Your task to perform on an android device: turn off priority inbox in the gmail app Image 0: 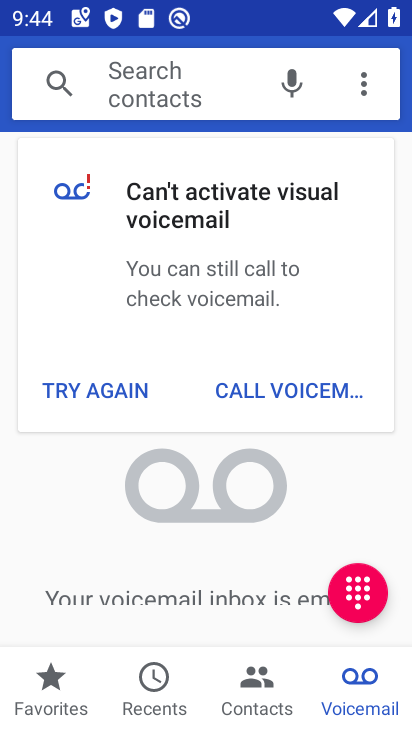
Step 0: press home button
Your task to perform on an android device: turn off priority inbox in the gmail app Image 1: 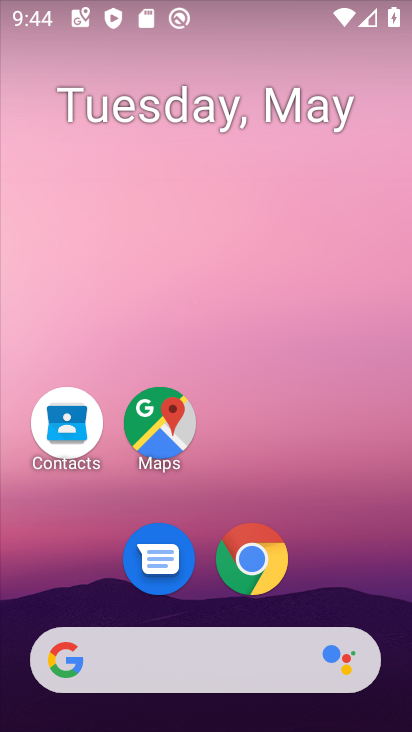
Step 1: drag from (329, 565) to (249, 16)
Your task to perform on an android device: turn off priority inbox in the gmail app Image 2: 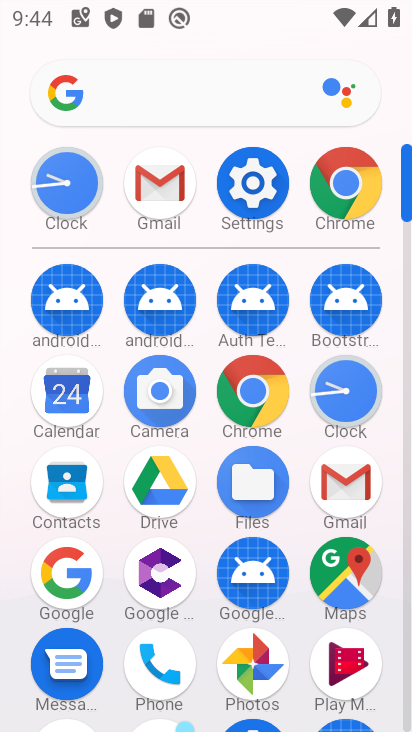
Step 2: click (164, 210)
Your task to perform on an android device: turn off priority inbox in the gmail app Image 3: 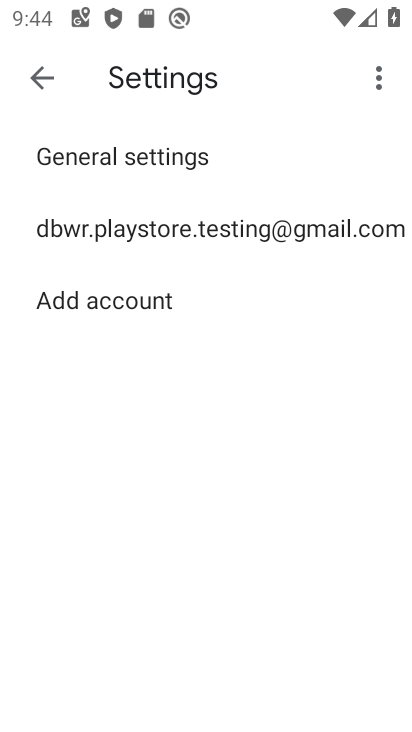
Step 3: click (41, 74)
Your task to perform on an android device: turn off priority inbox in the gmail app Image 4: 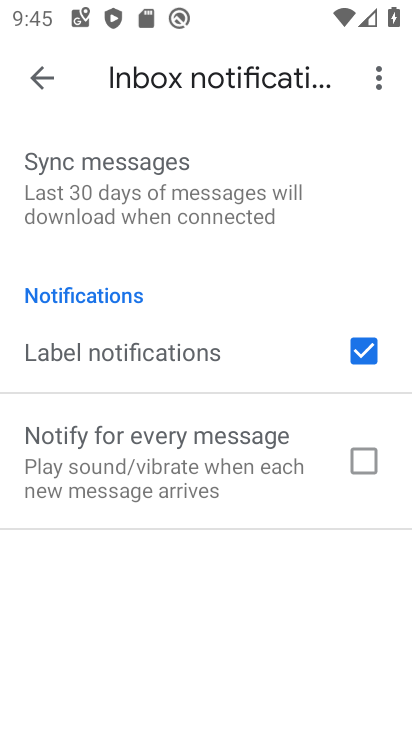
Step 4: click (54, 99)
Your task to perform on an android device: turn off priority inbox in the gmail app Image 5: 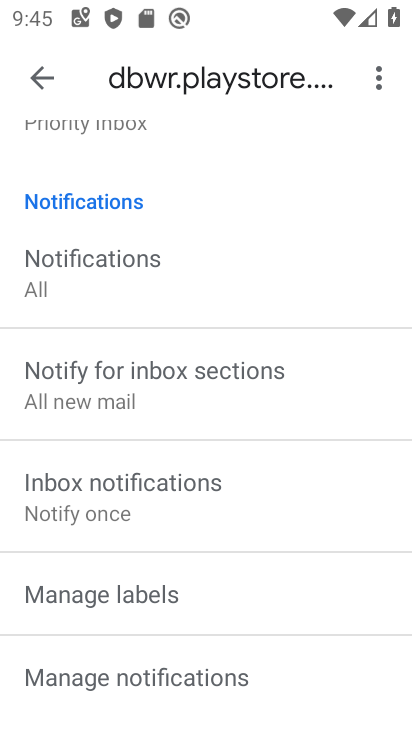
Step 5: task complete